Your task to perform on an android device: Search for vegetarian restaurants on Maps Image 0: 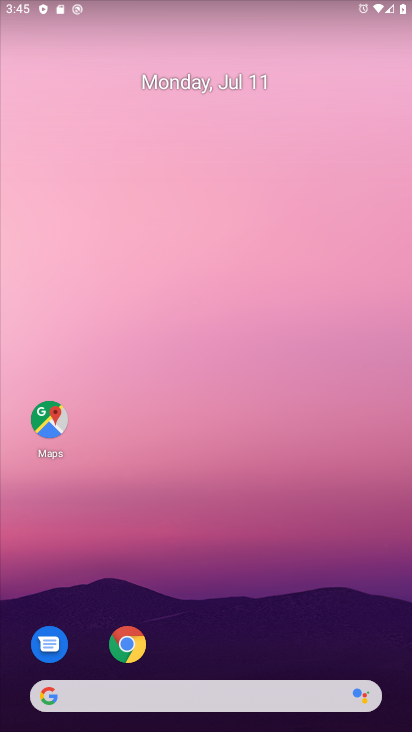
Step 0: drag from (323, 686) to (324, 43)
Your task to perform on an android device: Search for vegetarian restaurants on Maps Image 1: 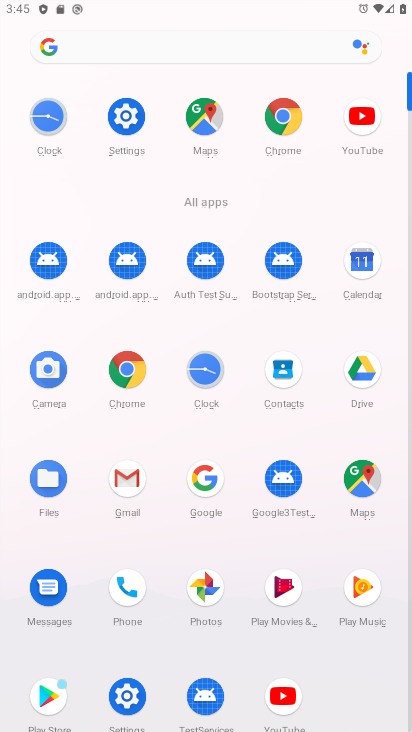
Step 1: click (356, 465)
Your task to perform on an android device: Search for vegetarian restaurants on Maps Image 2: 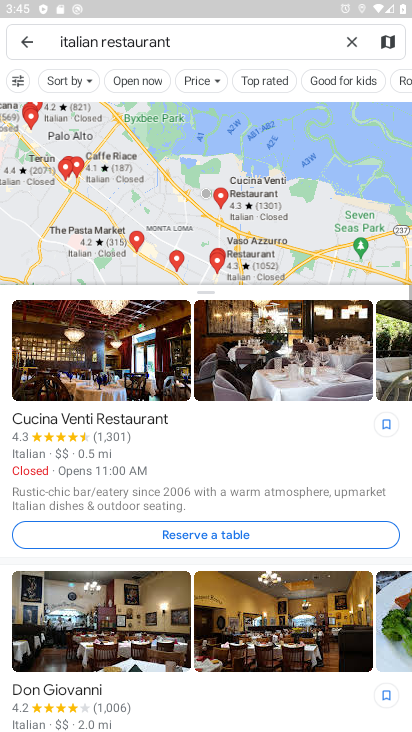
Step 2: press back button
Your task to perform on an android device: Search for vegetarian restaurants on Maps Image 3: 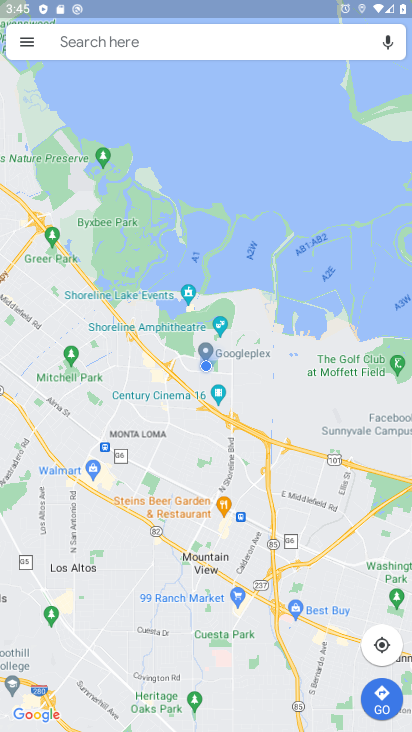
Step 3: click (198, 43)
Your task to perform on an android device: Search for vegetarian restaurants on Maps Image 4: 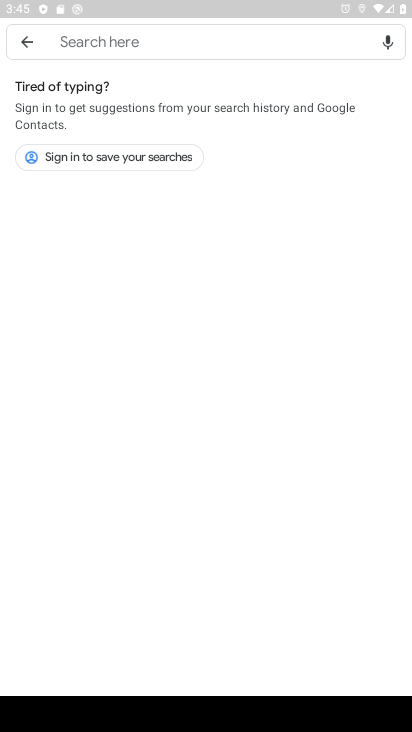
Step 4: type "vegetarian restaurant"
Your task to perform on an android device: Search for vegetarian restaurants on Maps Image 5: 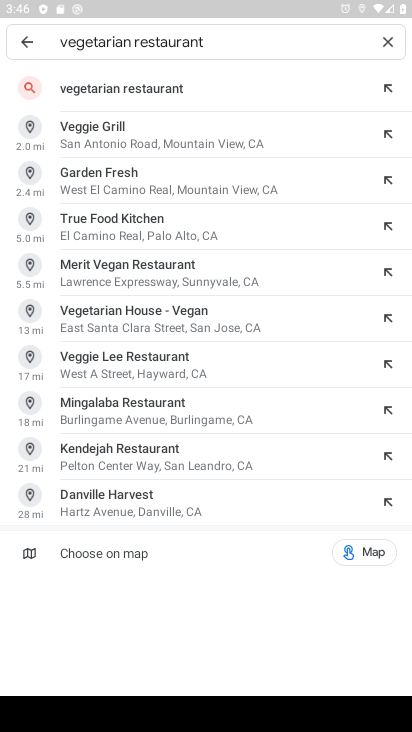
Step 5: click (196, 95)
Your task to perform on an android device: Search for vegetarian restaurants on Maps Image 6: 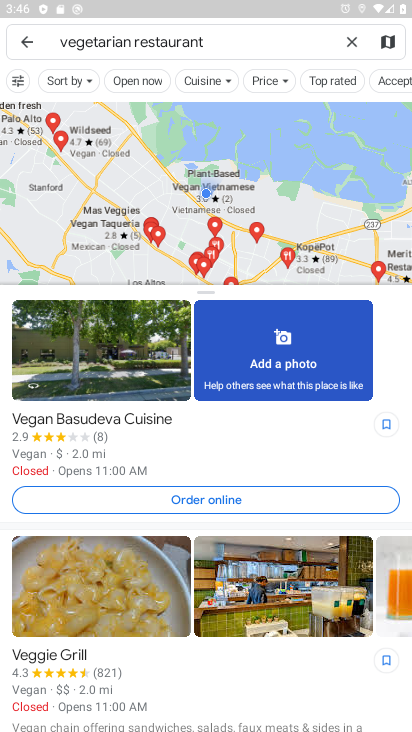
Step 6: task complete